Your task to perform on an android device: turn on the 24-hour format for clock Image 0: 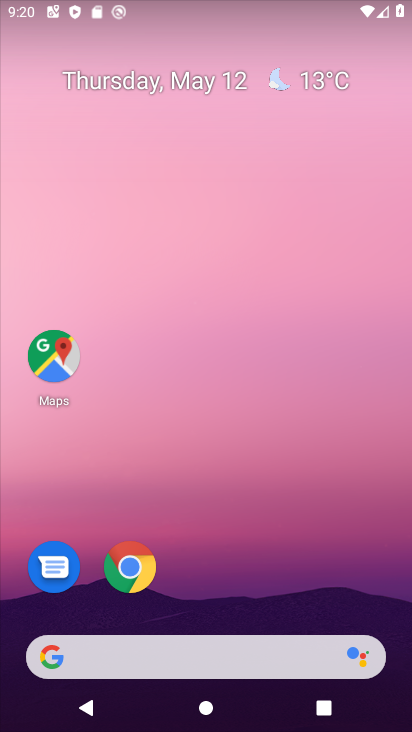
Step 0: press home button
Your task to perform on an android device: turn on the 24-hour format for clock Image 1: 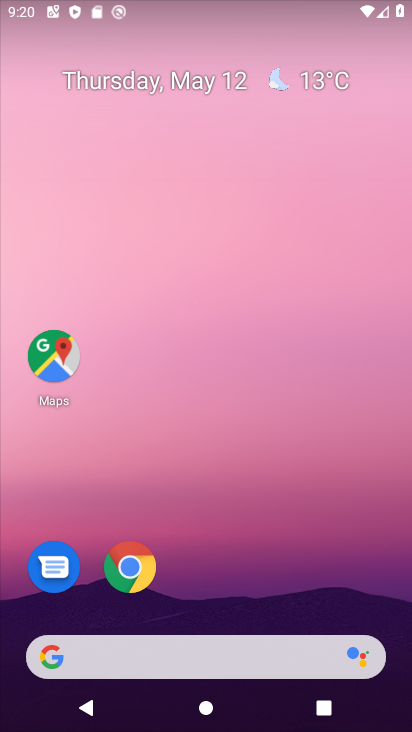
Step 1: drag from (197, 603) to (230, 74)
Your task to perform on an android device: turn on the 24-hour format for clock Image 2: 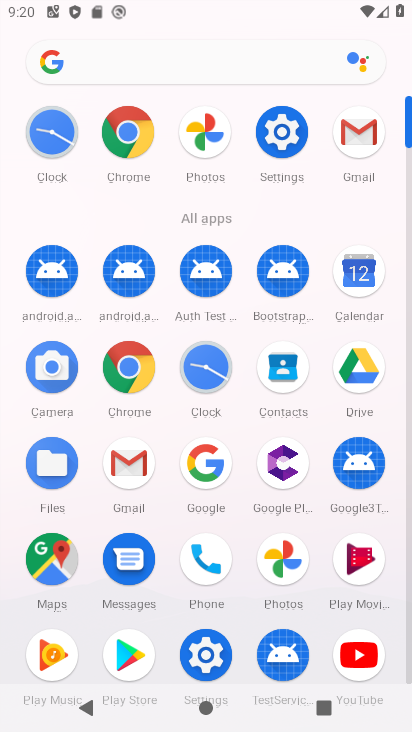
Step 2: click (203, 363)
Your task to perform on an android device: turn on the 24-hour format for clock Image 3: 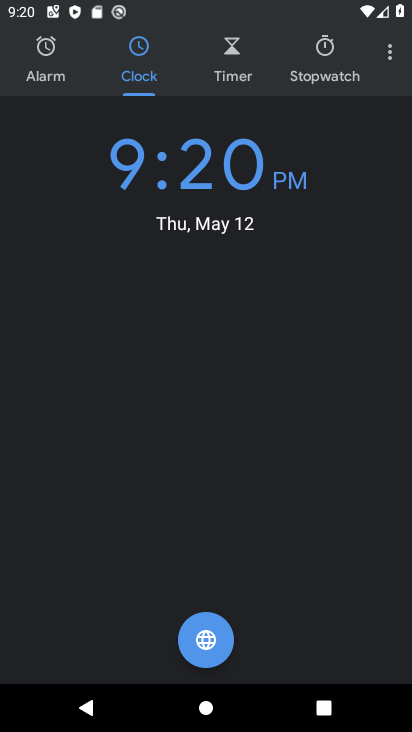
Step 3: click (378, 50)
Your task to perform on an android device: turn on the 24-hour format for clock Image 4: 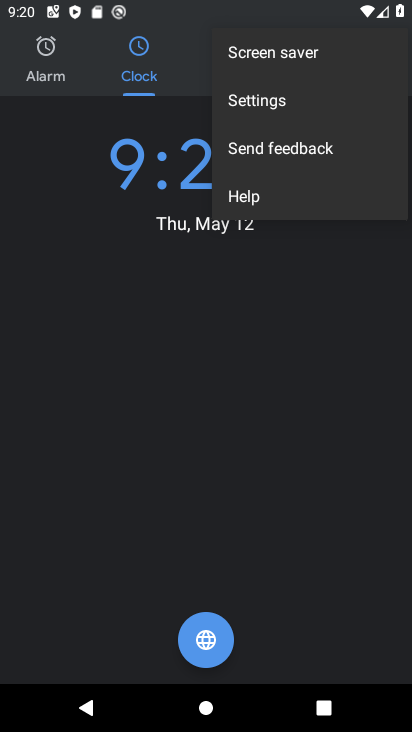
Step 4: click (293, 99)
Your task to perform on an android device: turn on the 24-hour format for clock Image 5: 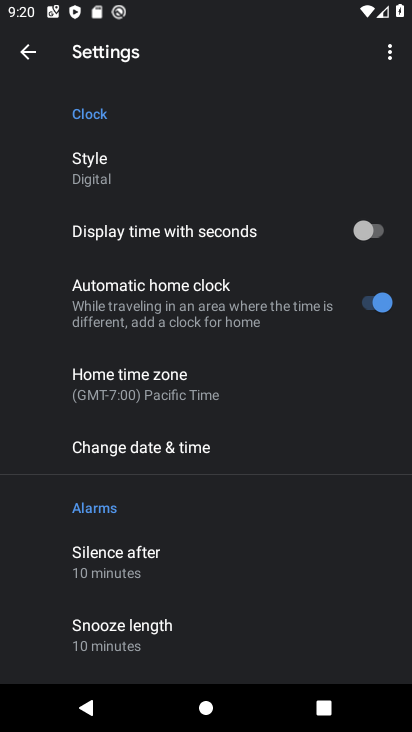
Step 5: click (216, 440)
Your task to perform on an android device: turn on the 24-hour format for clock Image 6: 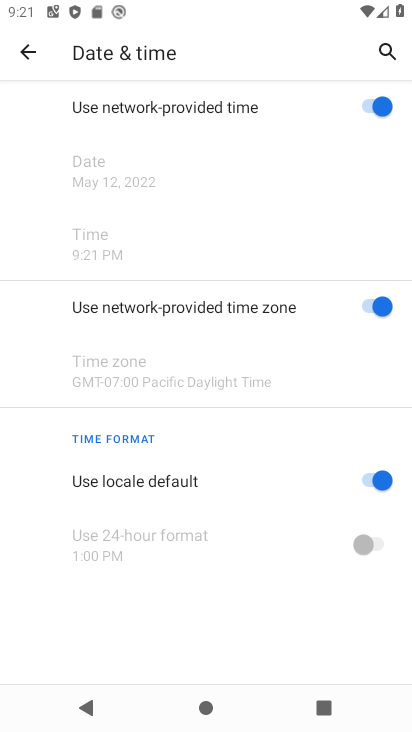
Step 6: click (366, 474)
Your task to perform on an android device: turn on the 24-hour format for clock Image 7: 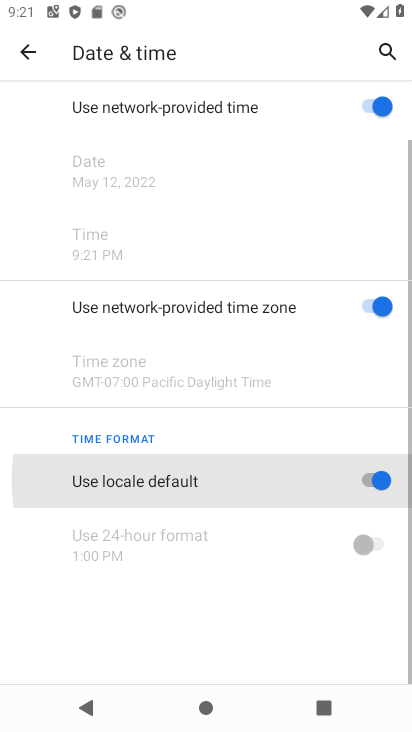
Step 7: click (367, 541)
Your task to perform on an android device: turn on the 24-hour format for clock Image 8: 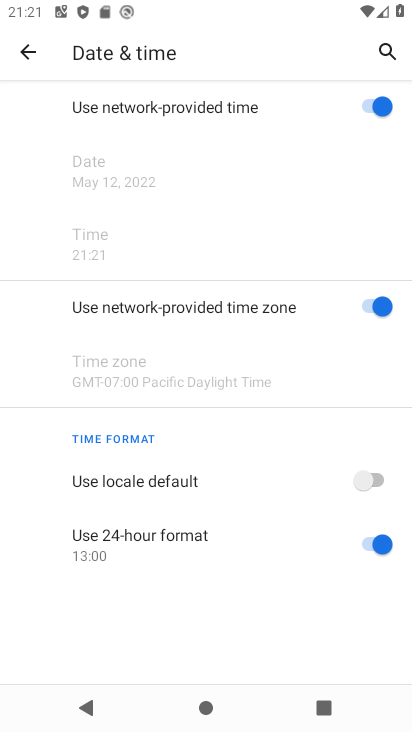
Step 8: task complete